Your task to perform on an android device: turn vacation reply on in the gmail app Image 0: 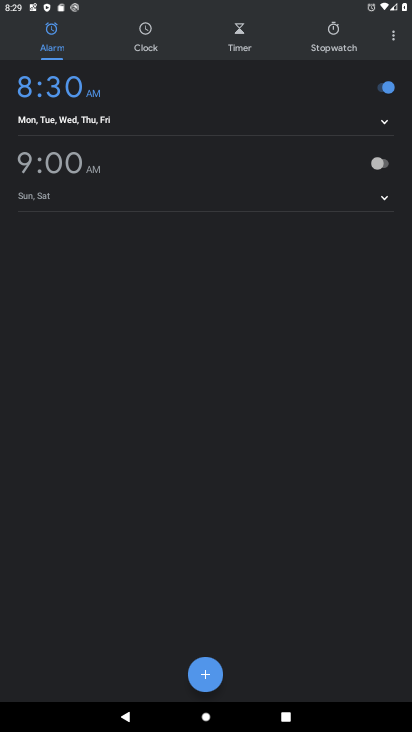
Step 0: press home button
Your task to perform on an android device: turn vacation reply on in the gmail app Image 1: 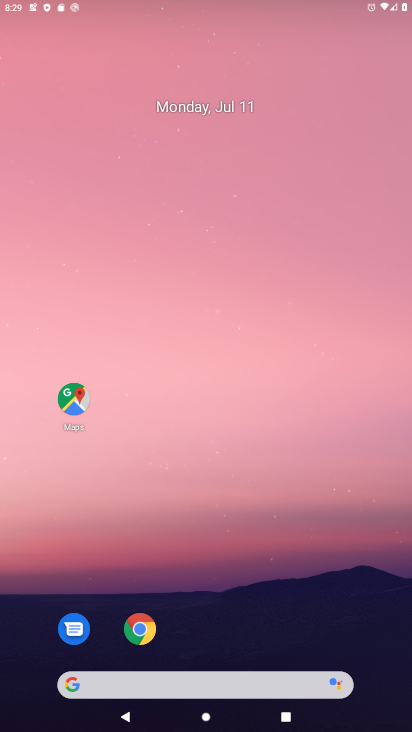
Step 1: drag from (225, 639) to (251, 113)
Your task to perform on an android device: turn vacation reply on in the gmail app Image 2: 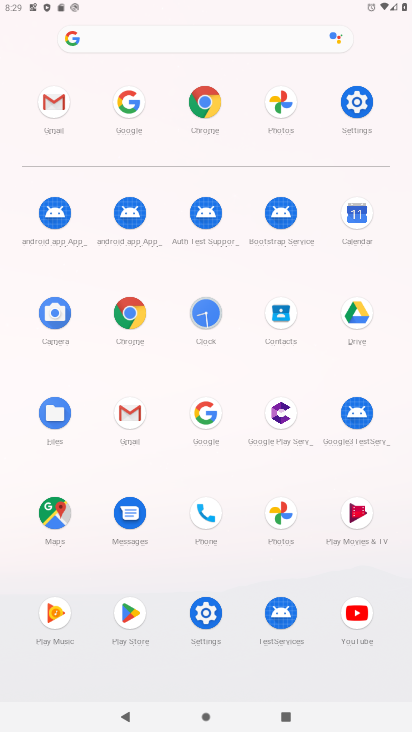
Step 2: click (132, 416)
Your task to perform on an android device: turn vacation reply on in the gmail app Image 3: 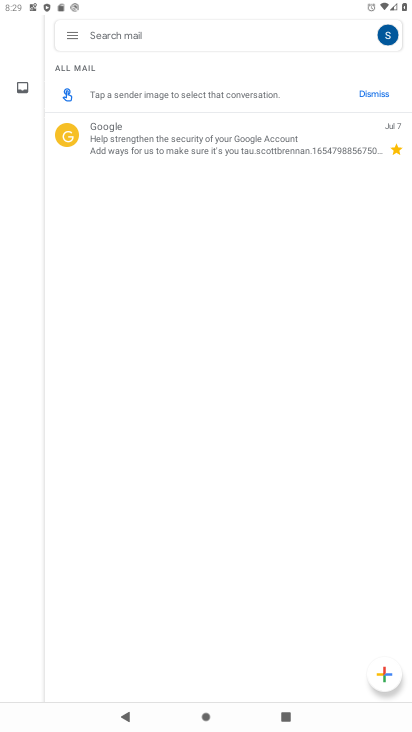
Step 3: click (392, 34)
Your task to perform on an android device: turn vacation reply on in the gmail app Image 4: 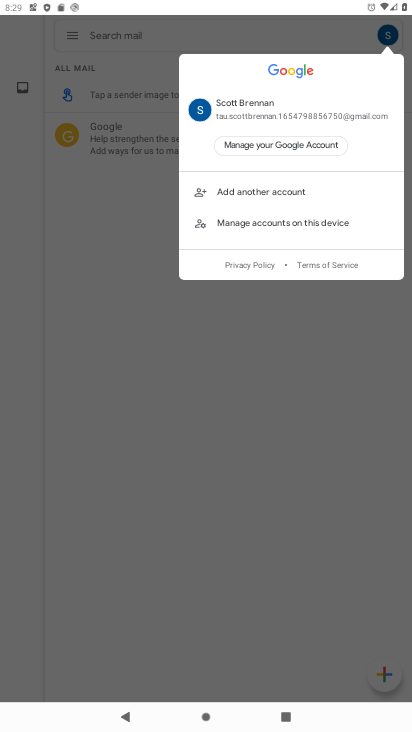
Step 4: click (127, 197)
Your task to perform on an android device: turn vacation reply on in the gmail app Image 5: 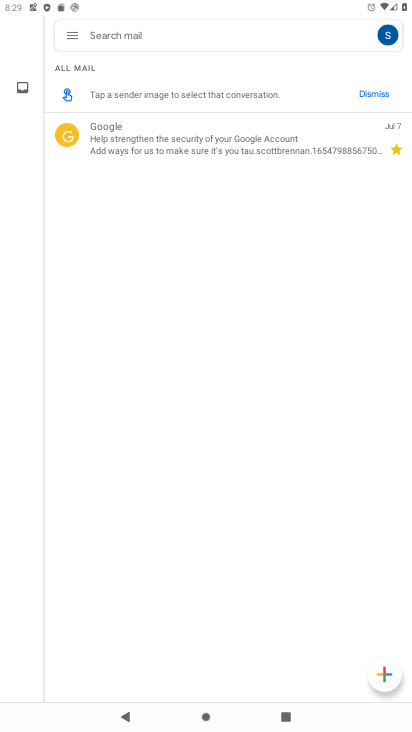
Step 5: click (387, 37)
Your task to perform on an android device: turn vacation reply on in the gmail app Image 6: 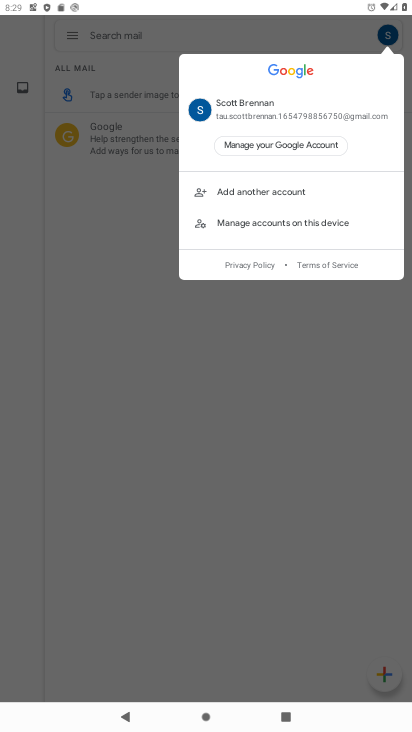
Step 6: click (260, 346)
Your task to perform on an android device: turn vacation reply on in the gmail app Image 7: 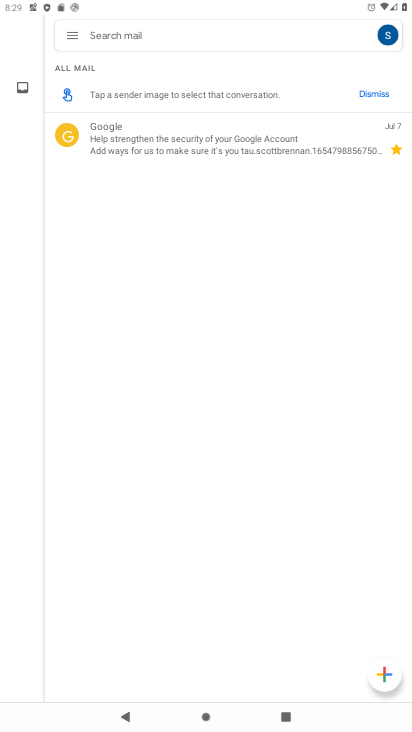
Step 7: click (78, 35)
Your task to perform on an android device: turn vacation reply on in the gmail app Image 8: 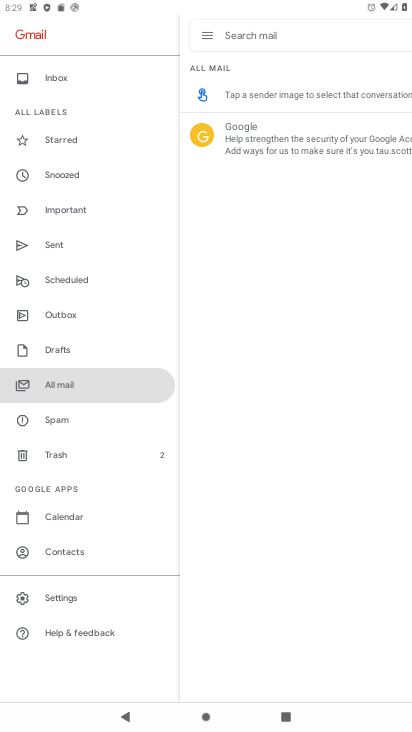
Step 8: click (74, 597)
Your task to perform on an android device: turn vacation reply on in the gmail app Image 9: 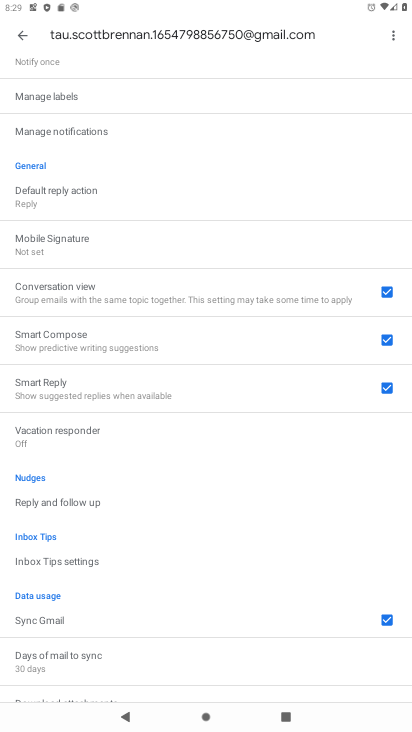
Step 9: click (89, 436)
Your task to perform on an android device: turn vacation reply on in the gmail app Image 10: 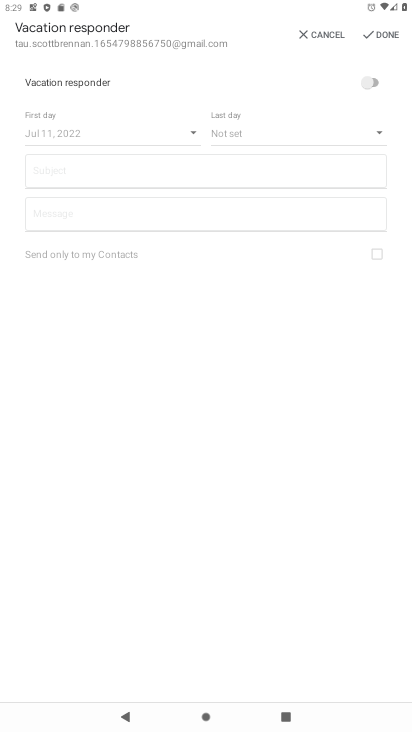
Step 10: click (366, 82)
Your task to perform on an android device: turn vacation reply on in the gmail app Image 11: 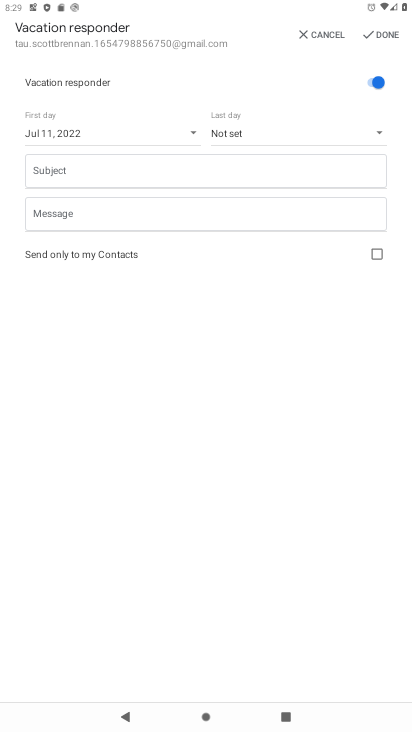
Step 11: task complete